Your task to perform on an android device: check storage Image 0: 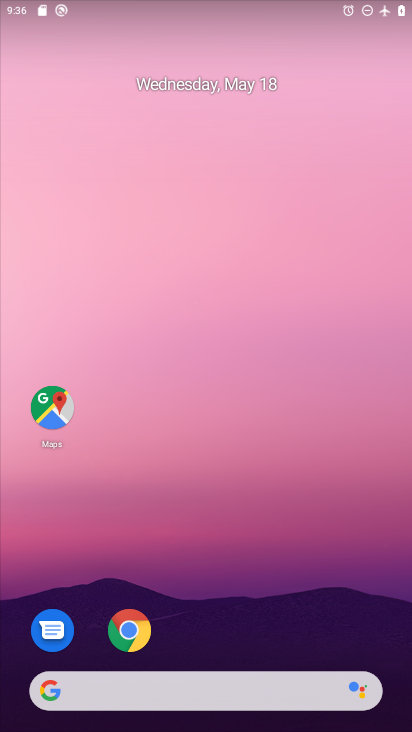
Step 0: drag from (209, 656) to (213, 1)
Your task to perform on an android device: check storage Image 1: 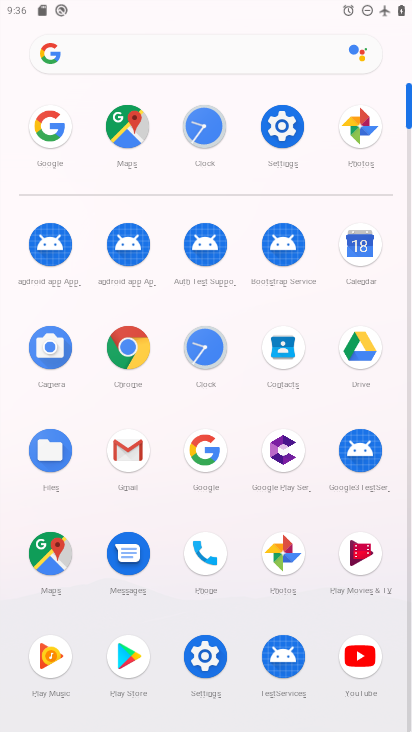
Step 1: click (291, 126)
Your task to perform on an android device: check storage Image 2: 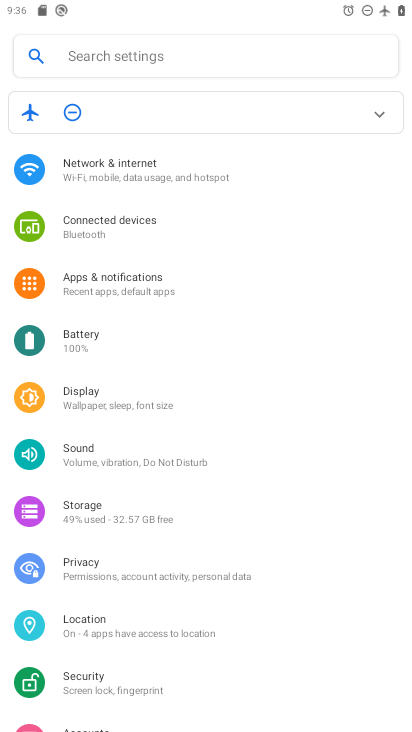
Step 2: click (40, 520)
Your task to perform on an android device: check storage Image 3: 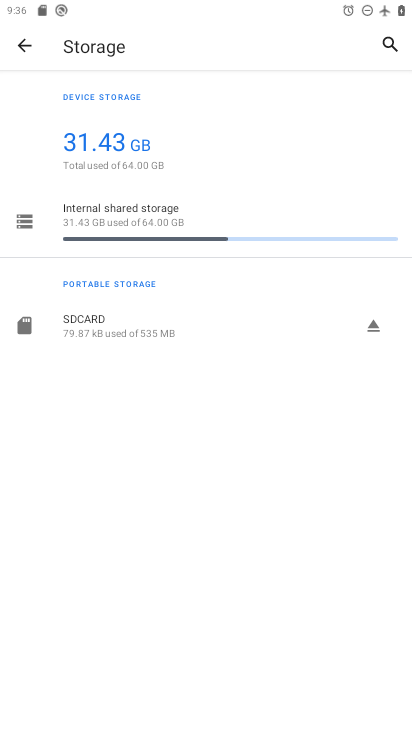
Step 3: task complete